Your task to perform on an android device: Open Android settings Image 0: 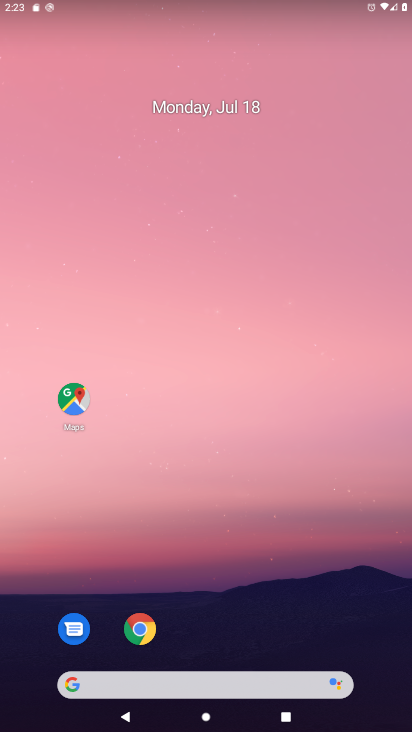
Step 0: drag from (197, 634) to (254, 72)
Your task to perform on an android device: Open Android settings Image 1: 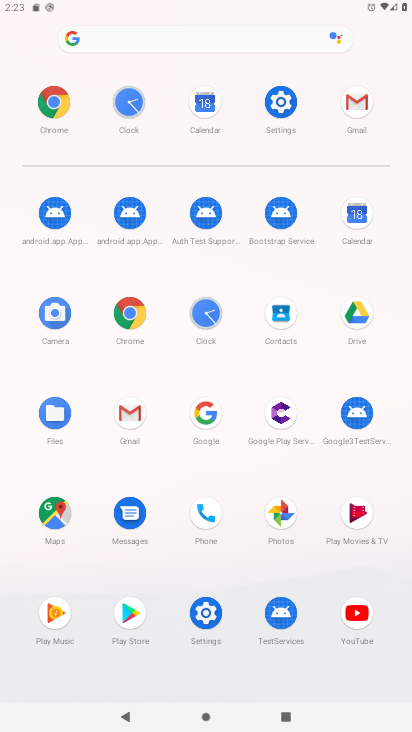
Step 1: click (281, 100)
Your task to perform on an android device: Open Android settings Image 2: 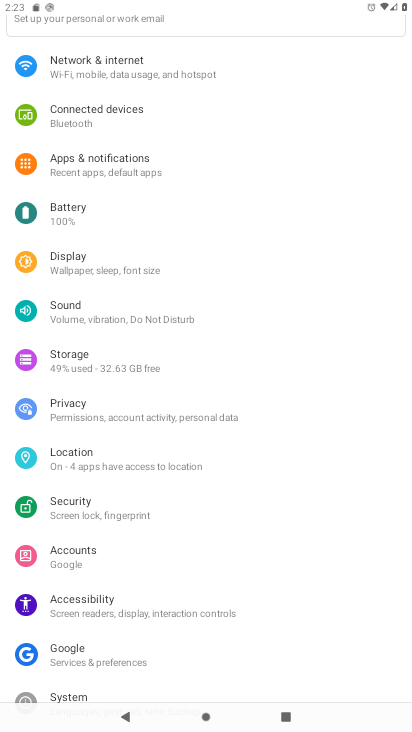
Step 2: drag from (105, 460) to (145, 287)
Your task to perform on an android device: Open Android settings Image 3: 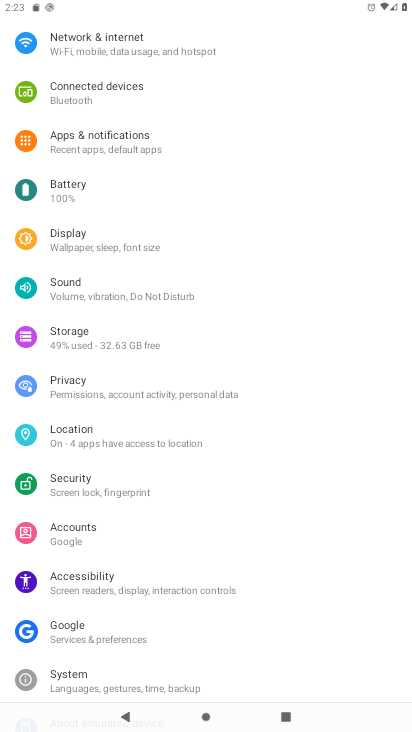
Step 3: drag from (126, 523) to (141, 294)
Your task to perform on an android device: Open Android settings Image 4: 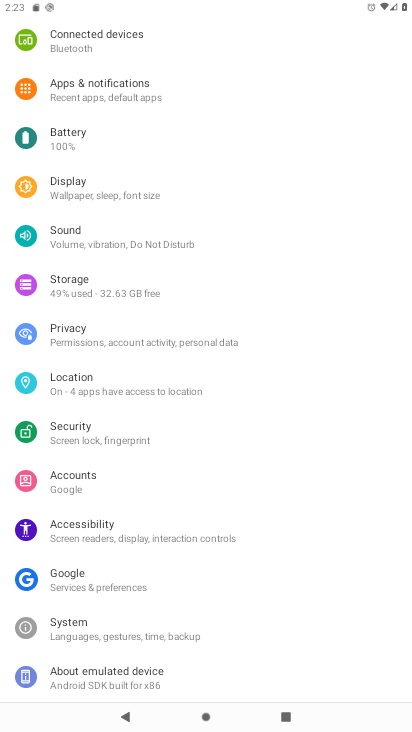
Step 4: click (105, 692)
Your task to perform on an android device: Open Android settings Image 5: 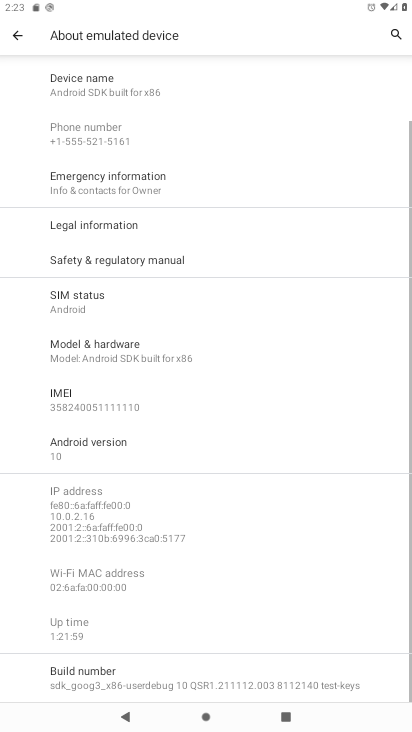
Step 5: task complete